Your task to perform on an android device: When is my next appointment? Image 0: 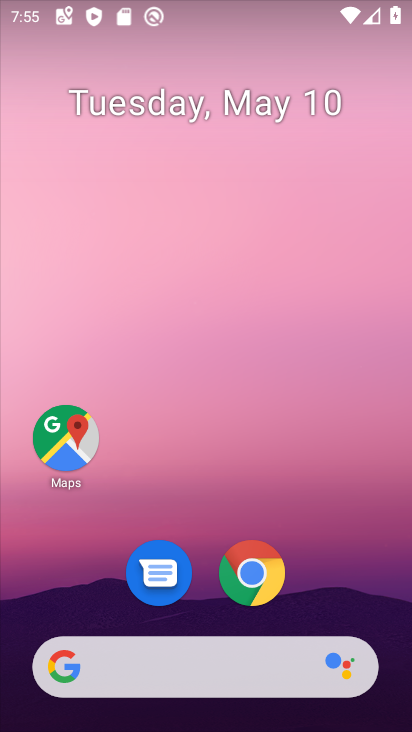
Step 0: drag from (319, 587) to (343, 182)
Your task to perform on an android device: When is my next appointment? Image 1: 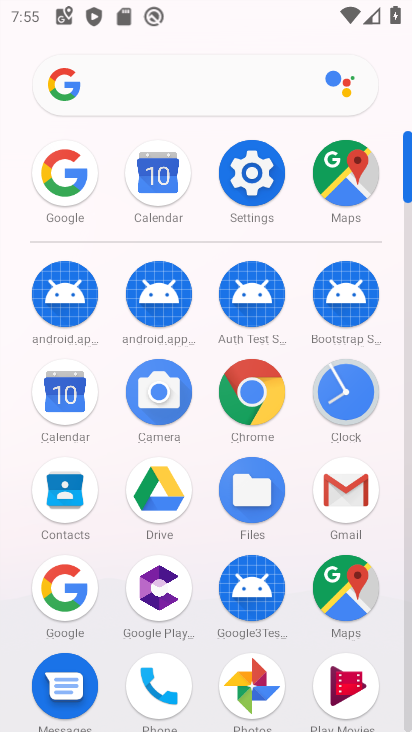
Step 1: click (67, 401)
Your task to perform on an android device: When is my next appointment? Image 2: 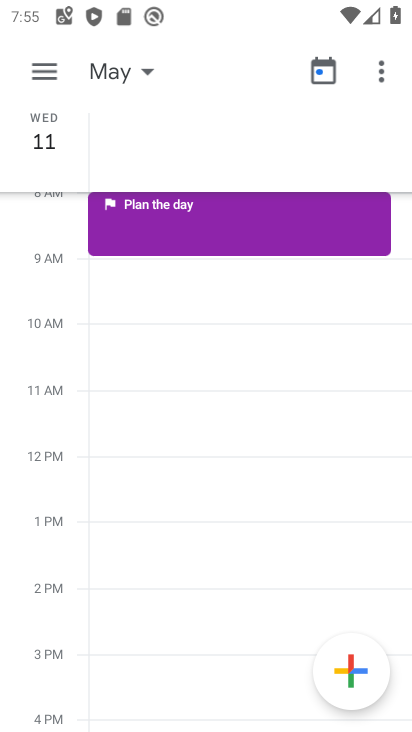
Step 2: click (34, 70)
Your task to perform on an android device: When is my next appointment? Image 3: 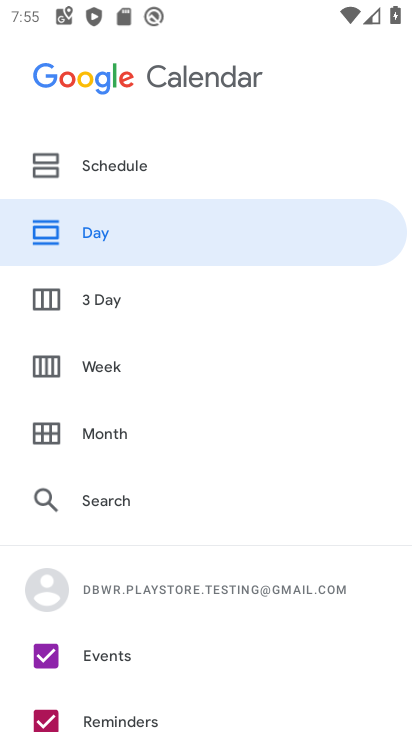
Step 3: click (114, 167)
Your task to perform on an android device: When is my next appointment? Image 4: 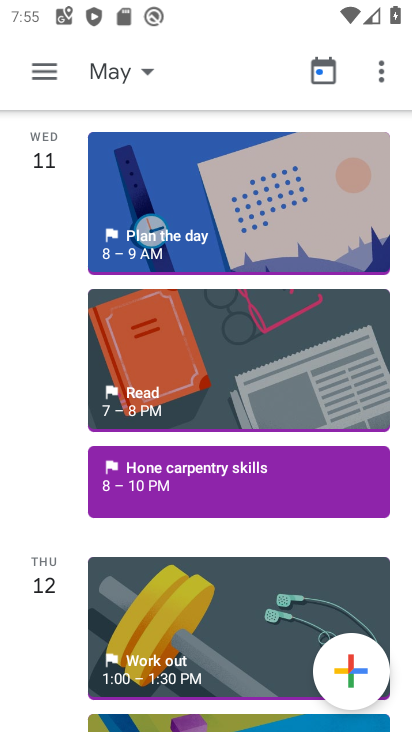
Step 4: task complete